Your task to perform on an android device: Open Youtube and go to "Your channel" Image 0: 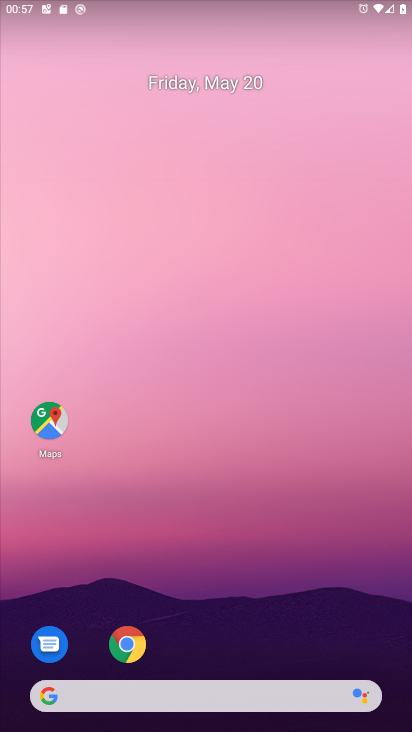
Step 0: drag from (186, 651) to (216, 348)
Your task to perform on an android device: Open Youtube and go to "Your channel" Image 1: 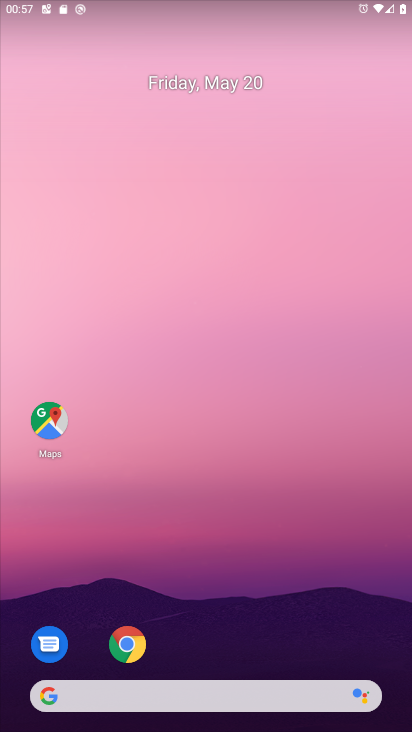
Step 1: drag from (221, 669) to (263, 350)
Your task to perform on an android device: Open Youtube and go to "Your channel" Image 2: 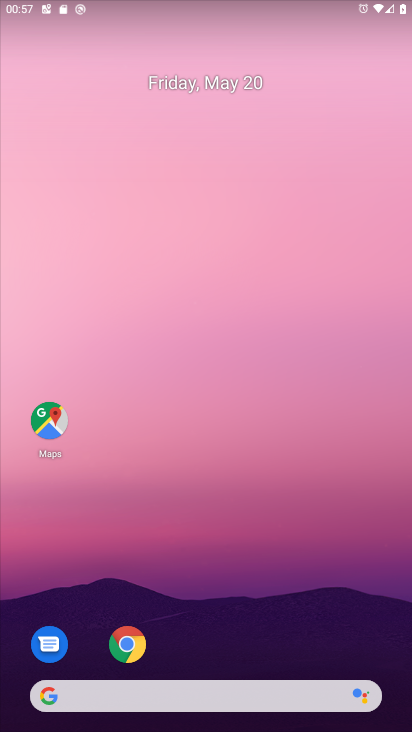
Step 2: drag from (165, 686) to (161, 360)
Your task to perform on an android device: Open Youtube and go to "Your channel" Image 3: 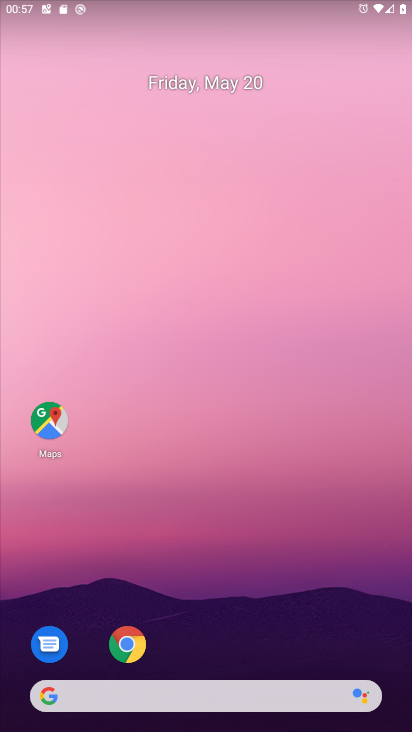
Step 3: drag from (157, 675) to (165, 273)
Your task to perform on an android device: Open Youtube and go to "Your channel" Image 4: 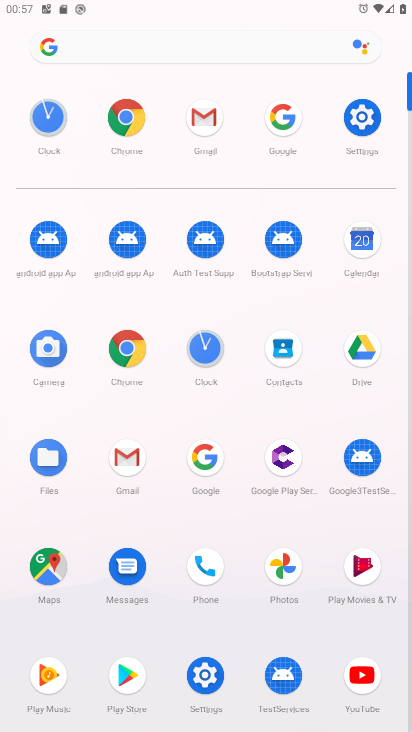
Step 4: click (357, 674)
Your task to perform on an android device: Open Youtube and go to "Your channel" Image 5: 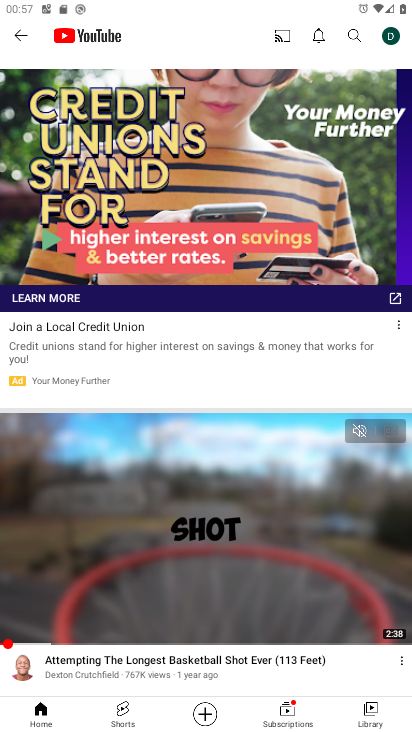
Step 5: click (389, 37)
Your task to perform on an android device: Open Youtube and go to "Your channel" Image 6: 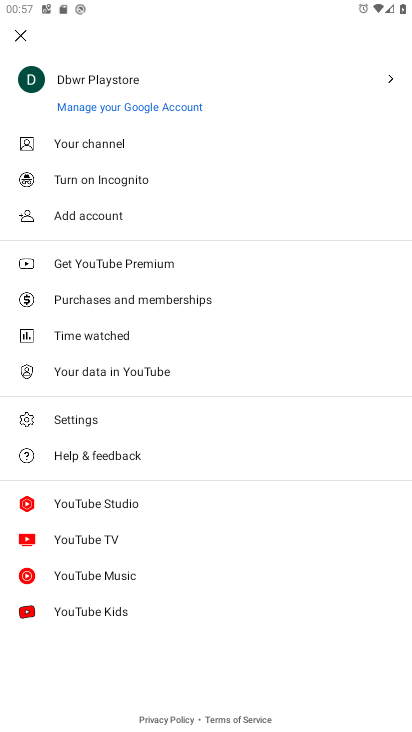
Step 6: click (86, 142)
Your task to perform on an android device: Open Youtube and go to "Your channel" Image 7: 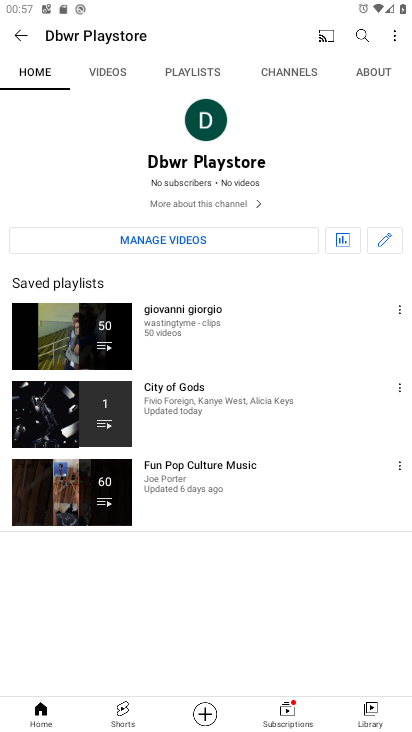
Step 7: task complete